Your task to perform on an android device: uninstall "Pinterest" Image 0: 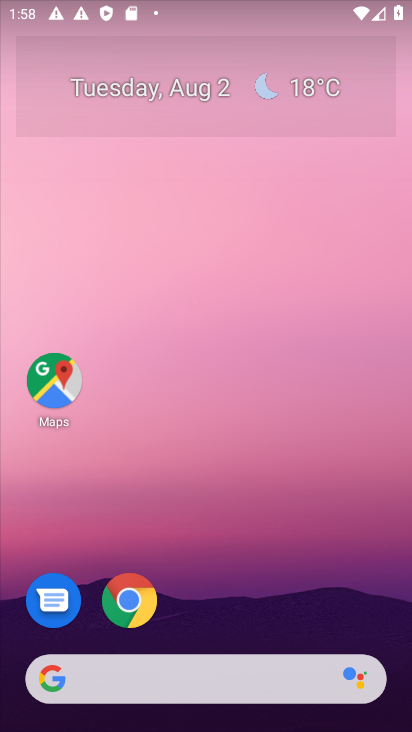
Step 0: drag from (73, 657) to (98, 29)
Your task to perform on an android device: uninstall "Pinterest" Image 1: 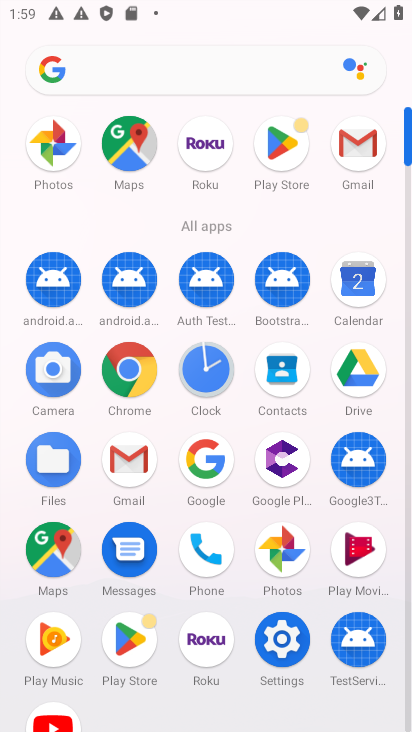
Step 1: click (296, 161)
Your task to perform on an android device: uninstall "Pinterest" Image 2: 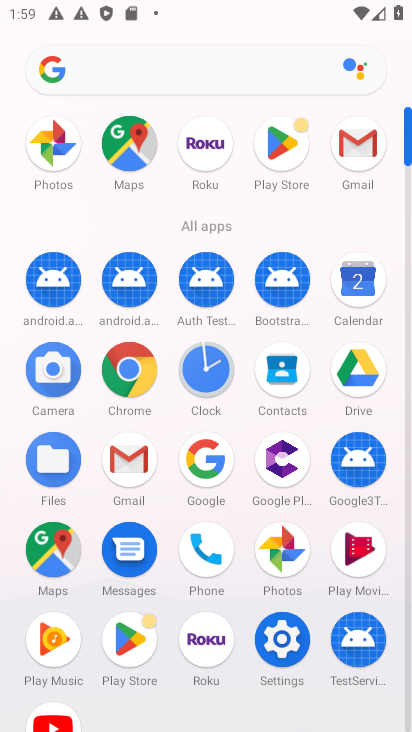
Step 2: click (296, 161)
Your task to perform on an android device: uninstall "Pinterest" Image 3: 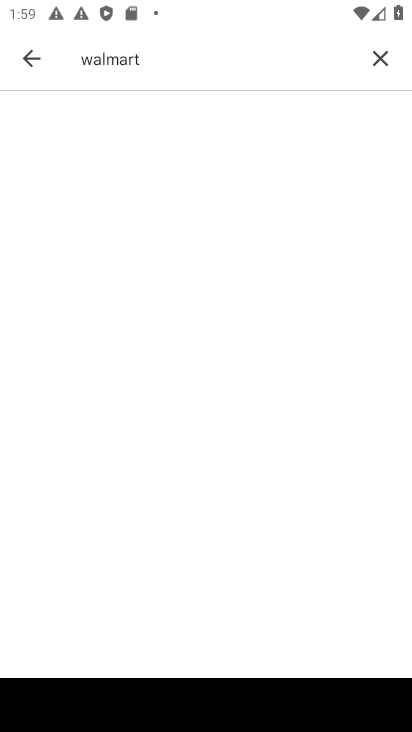
Step 3: click (380, 57)
Your task to perform on an android device: uninstall "Pinterest" Image 4: 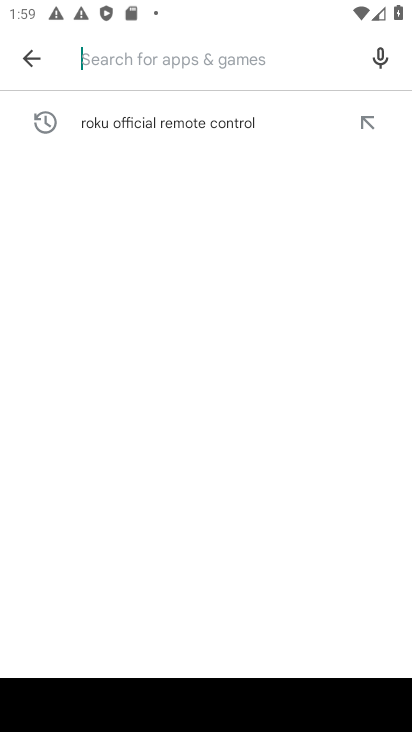
Step 4: type "pinterest "
Your task to perform on an android device: uninstall "Pinterest" Image 5: 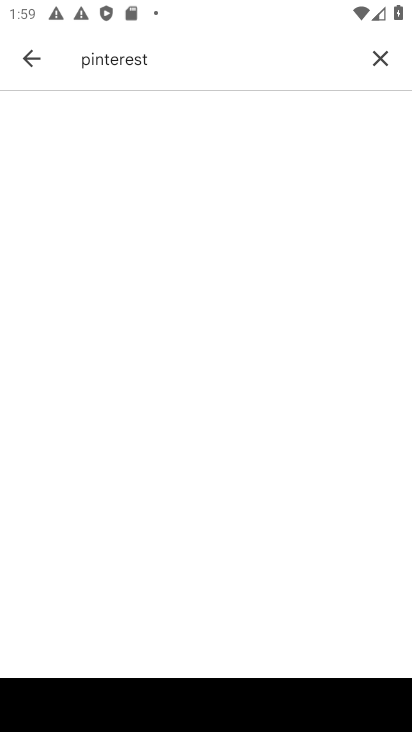
Step 5: press enter
Your task to perform on an android device: uninstall "Pinterest" Image 6: 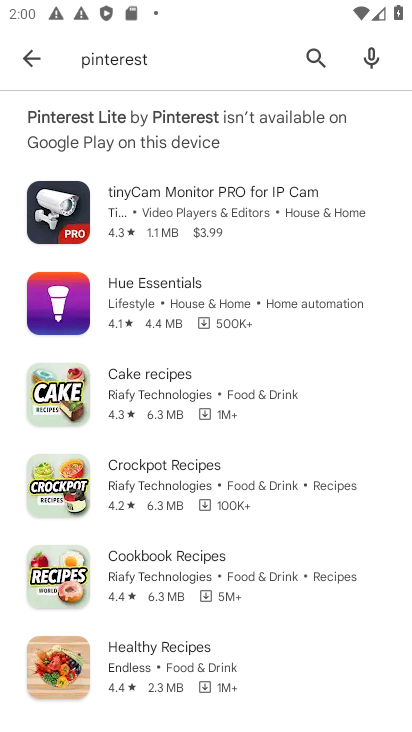
Step 6: task complete